Your task to perform on an android device: open wifi settings Image 0: 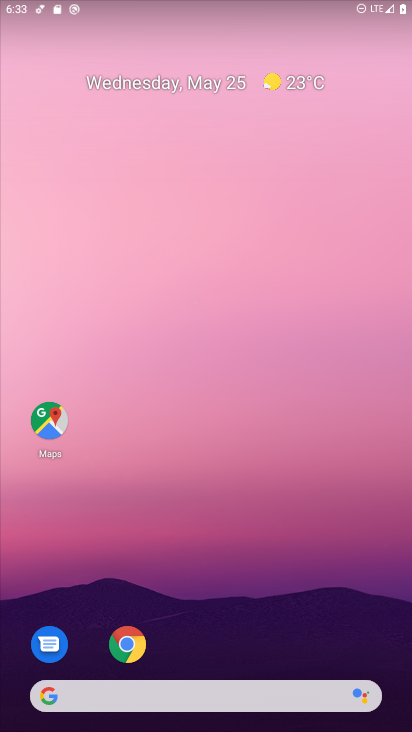
Step 0: drag from (392, 638) to (259, 12)
Your task to perform on an android device: open wifi settings Image 1: 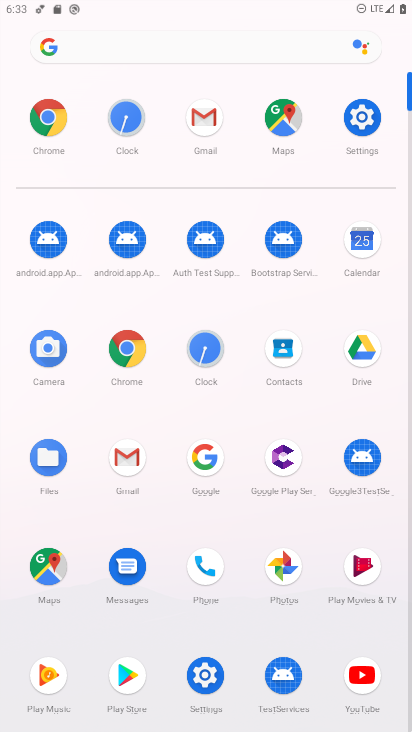
Step 1: click (373, 131)
Your task to perform on an android device: open wifi settings Image 2: 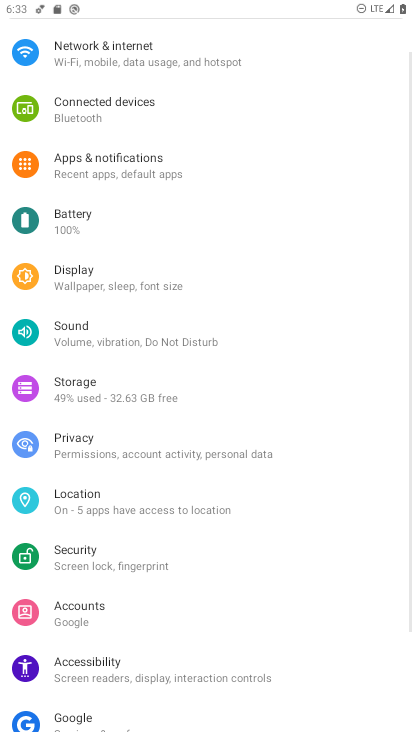
Step 2: drag from (148, 95) to (82, 599)
Your task to perform on an android device: open wifi settings Image 3: 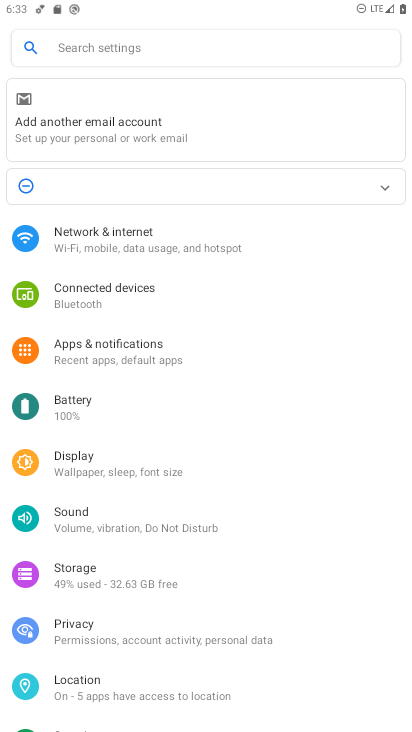
Step 3: click (130, 241)
Your task to perform on an android device: open wifi settings Image 4: 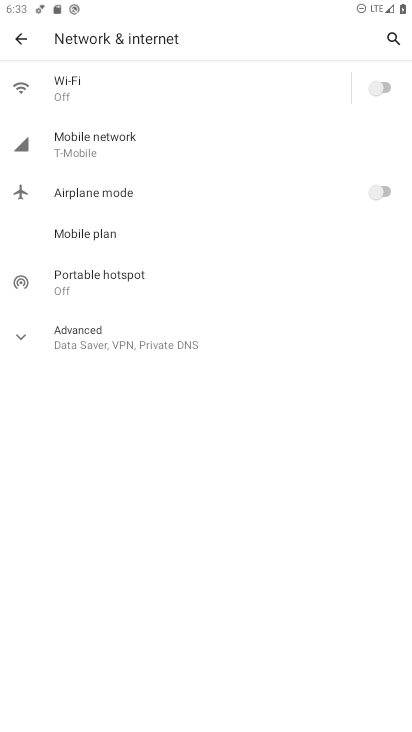
Step 4: click (103, 76)
Your task to perform on an android device: open wifi settings Image 5: 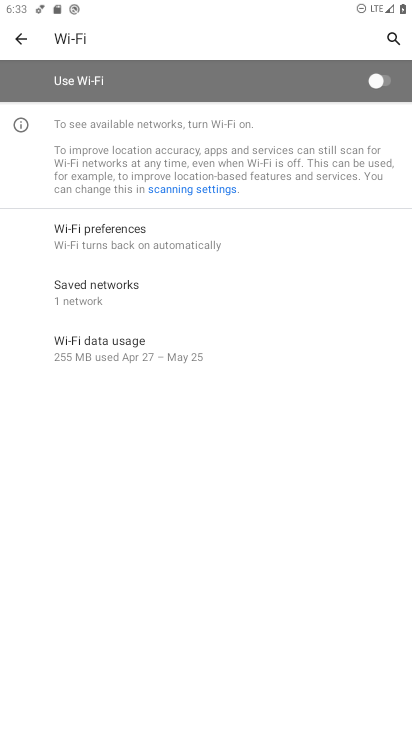
Step 5: task complete